Your task to perform on an android device: Search for Italian restaurants on Maps Image 0: 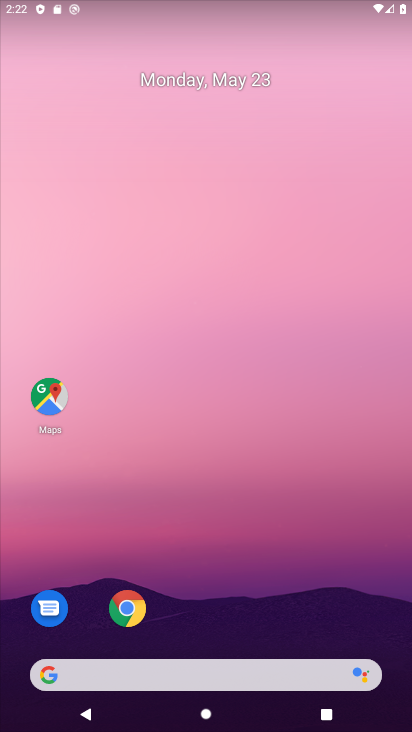
Step 0: click (43, 400)
Your task to perform on an android device: Search for Italian restaurants on Maps Image 1: 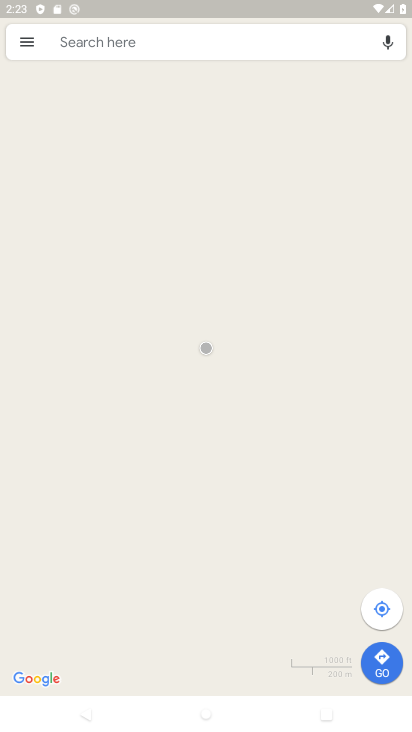
Step 1: click (221, 41)
Your task to perform on an android device: Search for Italian restaurants on Maps Image 2: 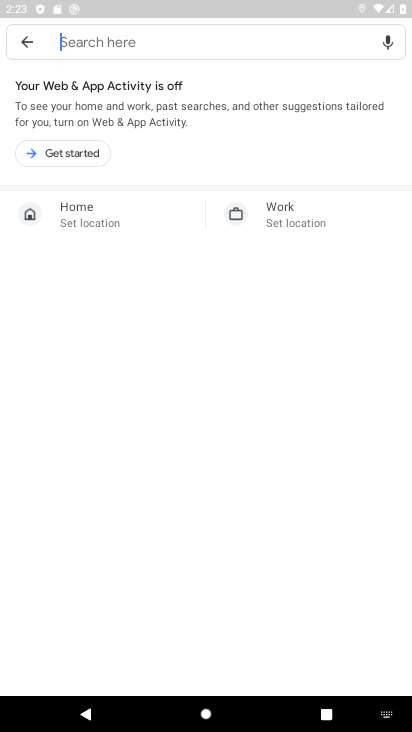
Step 2: type "italian restaurants"
Your task to perform on an android device: Search for Italian restaurants on Maps Image 3: 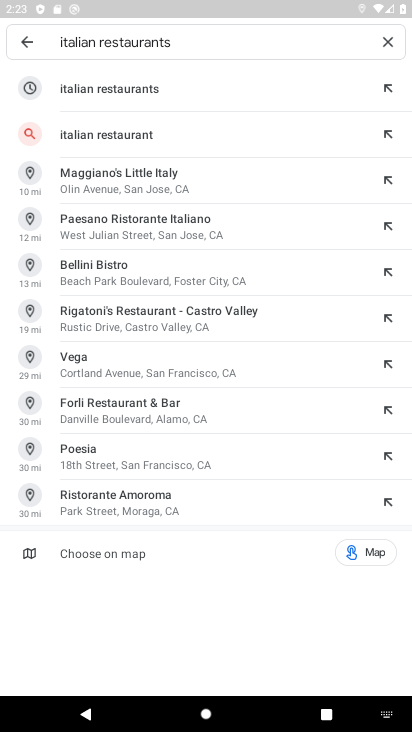
Step 3: click (150, 91)
Your task to perform on an android device: Search for Italian restaurants on Maps Image 4: 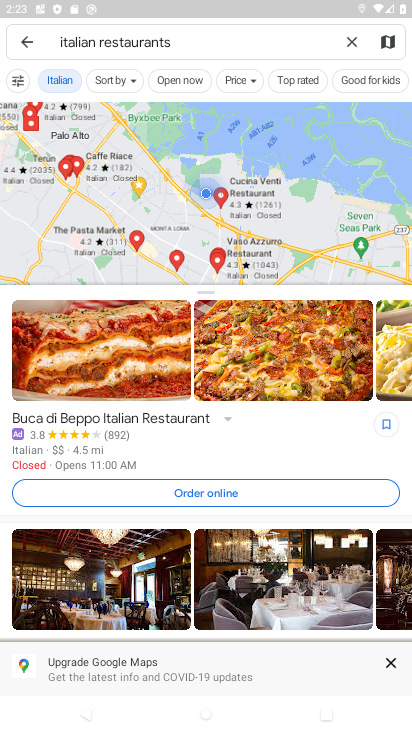
Step 4: task complete